Your task to perform on an android device: Open Youtube and go to the subscriptions tab Image 0: 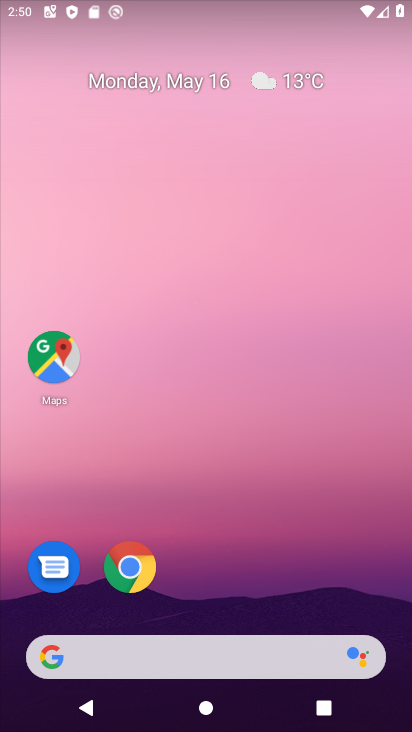
Step 0: drag from (263, 597) to (325, 136)
Your task to perform on an android device: Open Youtube and go to the subscriptions tab Image 1: 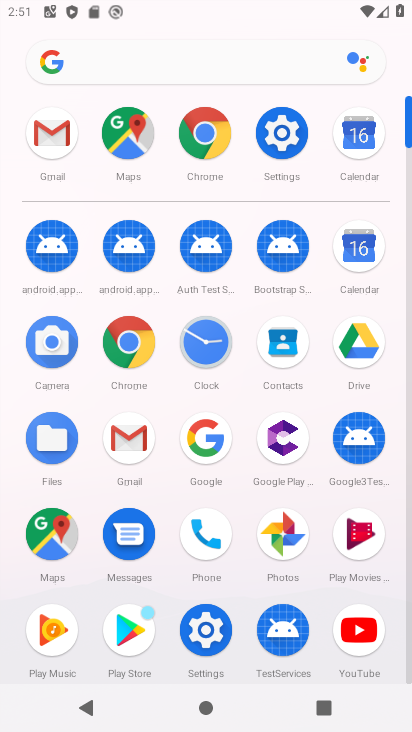
Step 1: click (361, 618)
Your task to perform on an android device: Open Youtube and go to the subscriptions tab Image 2: 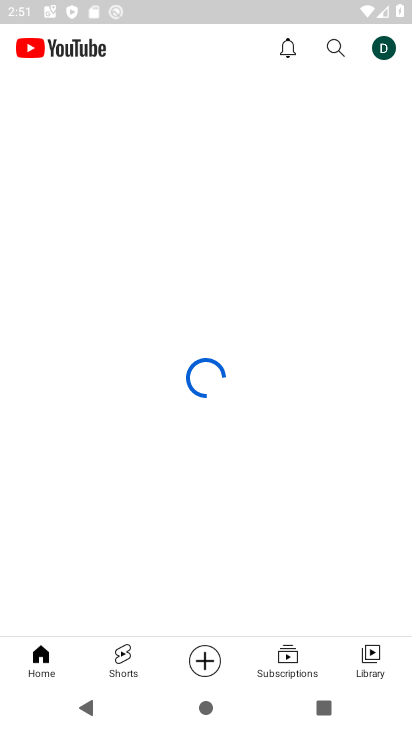
Step 2: click (266, 659)
Your task to perform on an android device: Open Youtube and go to the subscriptions tab Image 3: 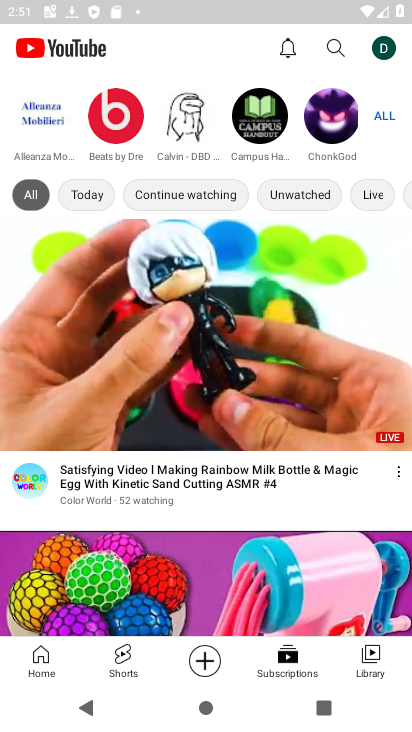
Step 3: task complete